Your task to perform on an android device: Open calendar and show me the first week of next month Image 0: 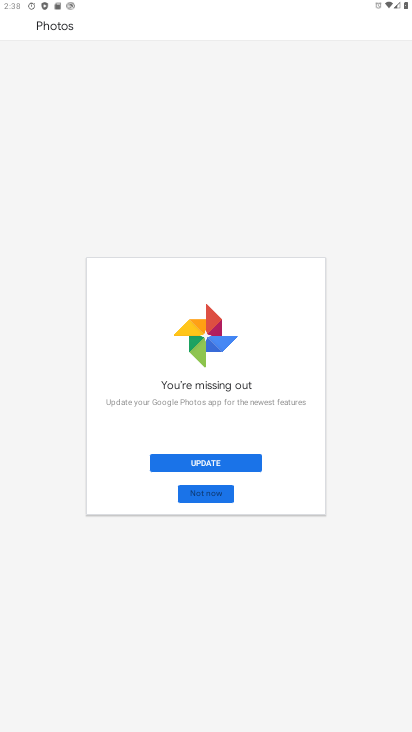
Step 0: press home button
Your task to perform on an android device: Open calendar and show me the first week of next month Image 1: 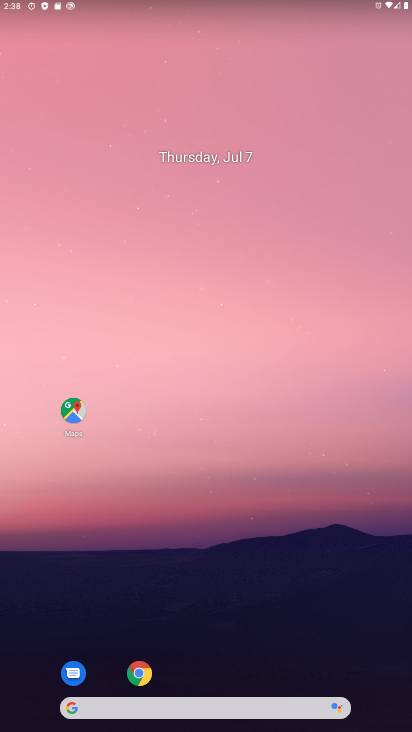
Step 1: drag from (239, 697) to (238, 89)
Your task to perform on an android device: Open calendar and show me the first week of next month Image 2: 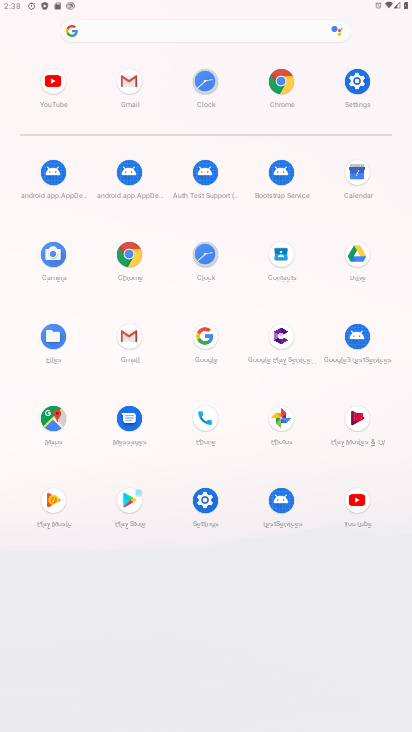
Step 2: click (352, 183)
Your task to perform on an android device: Open calendar and show me the first week of next month Image 3: 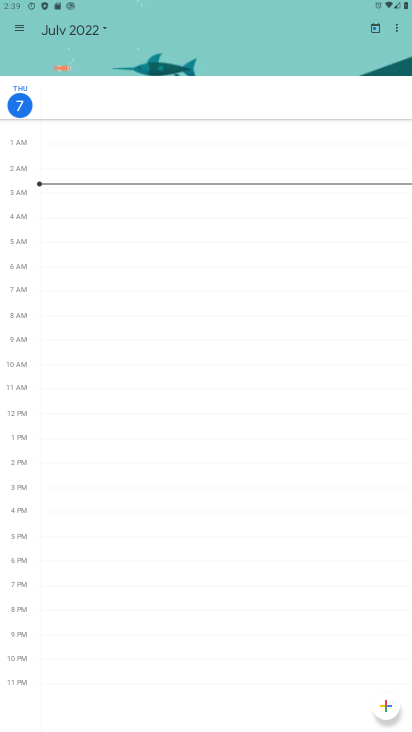
Step 3: click (18, 24)
Your task to perform on an android device: Open calendar and show me the first week of next month Image 4: 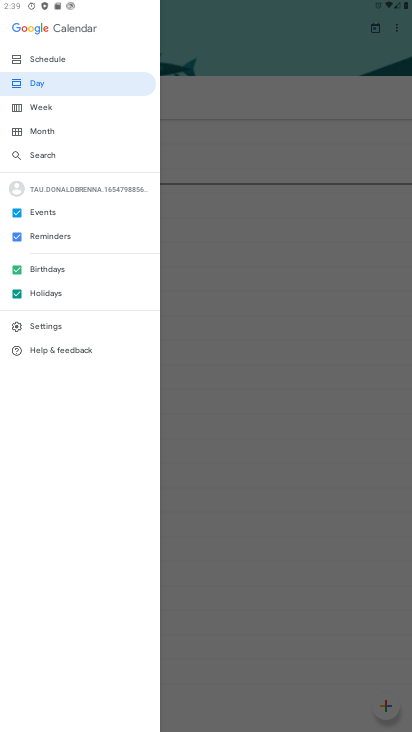
Step 4: click (37, 109)
Your task to perform on an android device: Open calendar and show me the first week of next month Image 5: 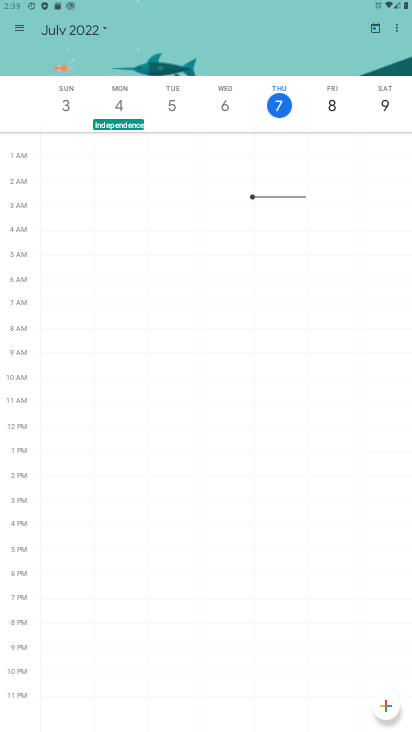
Step 5: task complete